Your task to perform on an android device: Show me the alarms in the clock app Image 0: 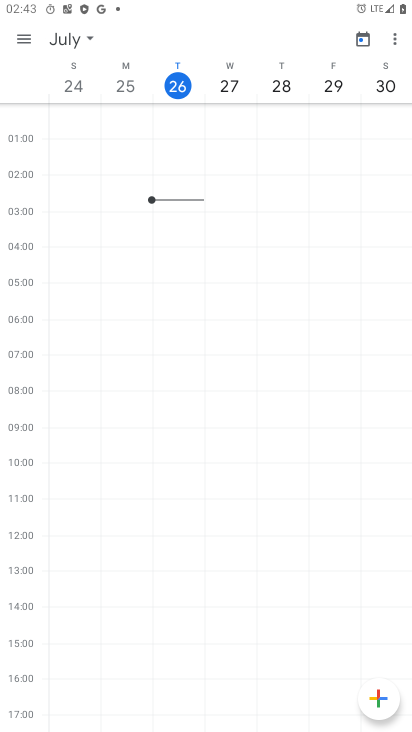
Step 0: press home button
Your task to perform on an android device: Show me the alarms in the clock app Image 1: 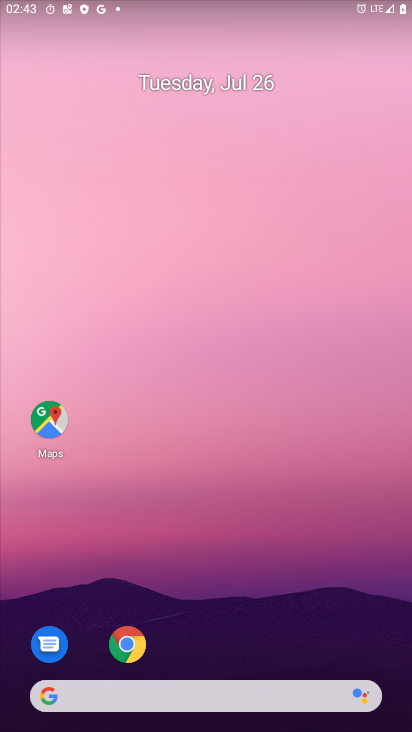
Step 1: drag from (214, 620) to (271, 20)
Your task to perform on an android device: Show me the alarms in the clock app Image 2: 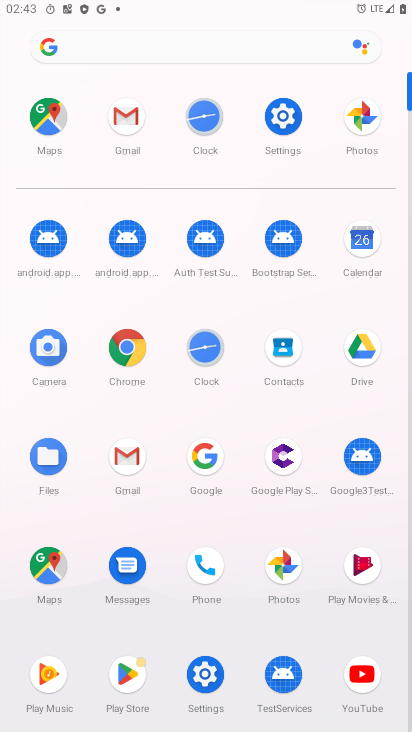
Step 2: click (204, 109)
Your task to perform on an android device: Show me the alarms in the clock app Image 3: 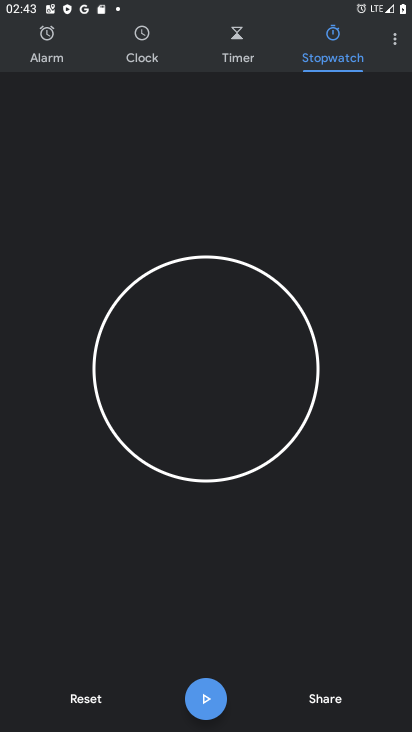
Step 3: click (51, 59)
Your task to perform on an android device: Show me the alarms in the clock app Image 4: 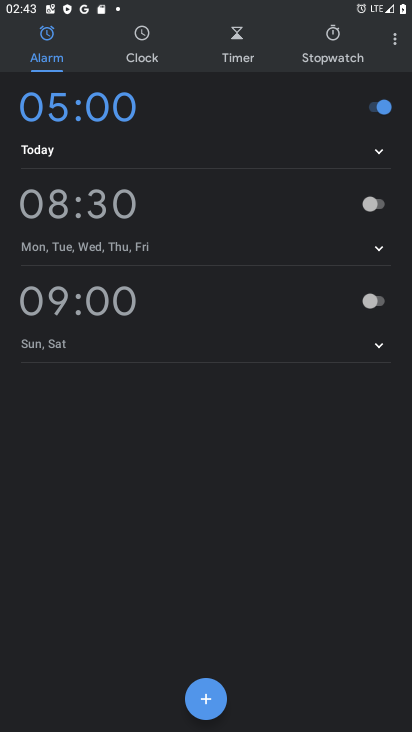
Step 4: task complete